Your task to perform on an android device: Is it going to rain tomorrow? Image 0: 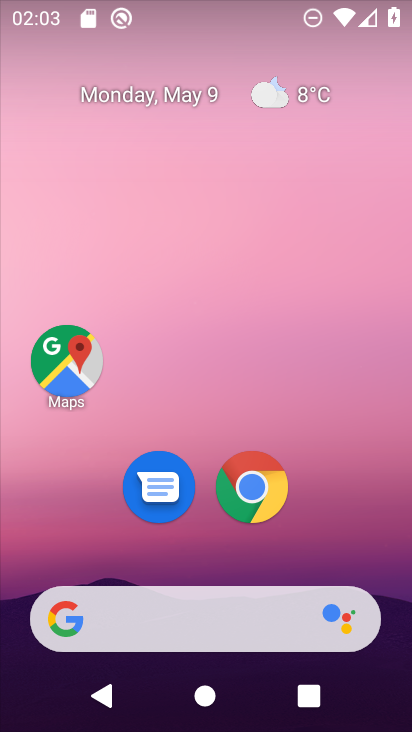
Step 0: click (297, 104)
Your task to perform on an android device: Is it going to rain tomorrow? Image 1: 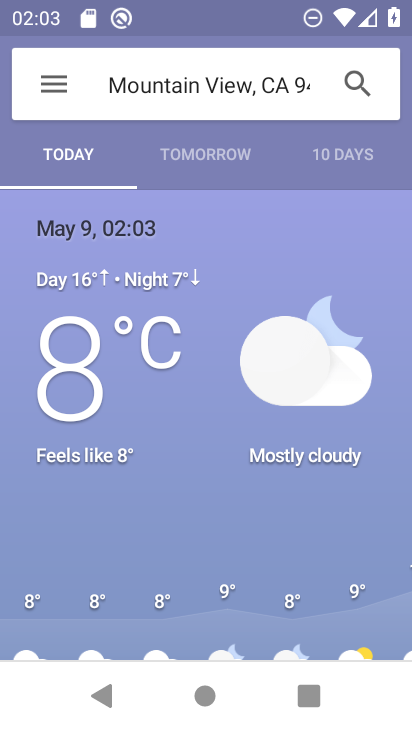
Step 1: click (251, 157)
Your task to perform on an android device: Is it going to rain tomorrow? Image 2: 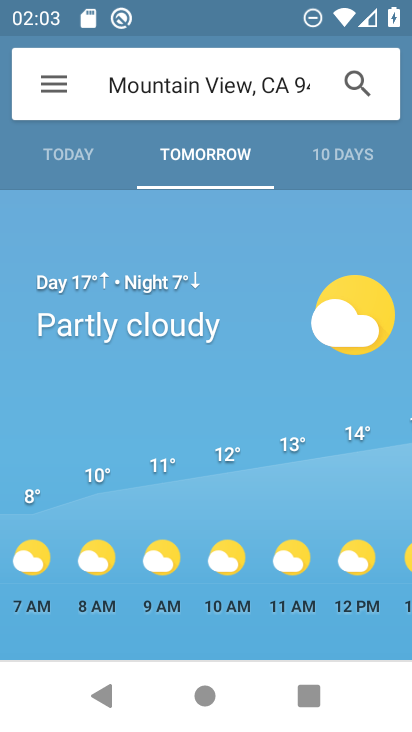
Step 2: task complete